Your task to perform on an android device: Search for vegetarian restaurants on Maps Image 0: 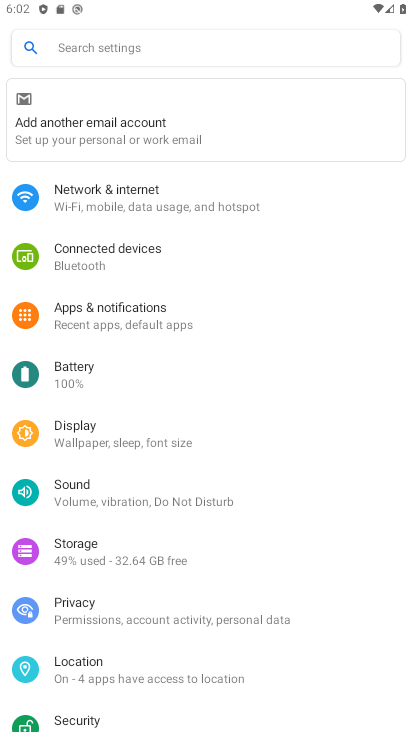
Step 0: press home button
Your task to perform on an android device: Search for vegetarian restaurants on Maps Image 1: 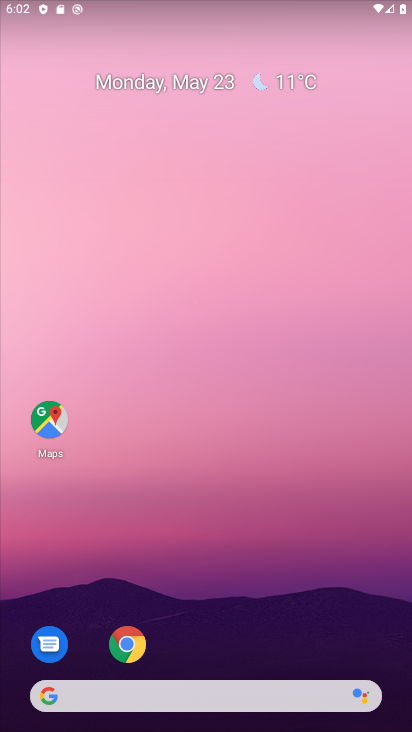
Step 1: click (57, 431)
Your task to perform on an android device: Search for vegetarian restaurants on Maps Image 2: 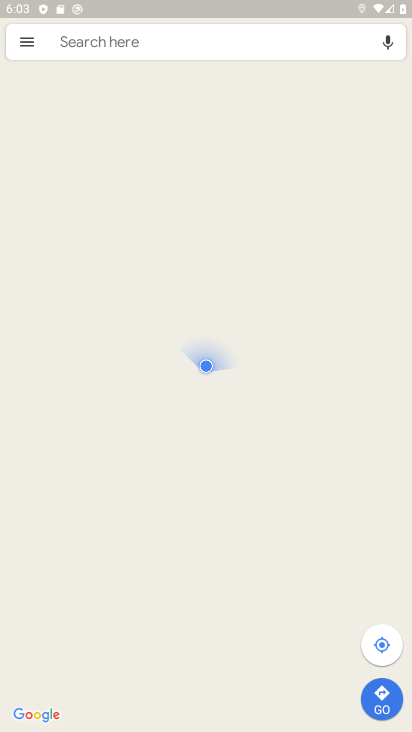
Step 2: click (148, 47)
Your task to perform on an android device: Search for vegetarian restaurants on Maps Image 3: 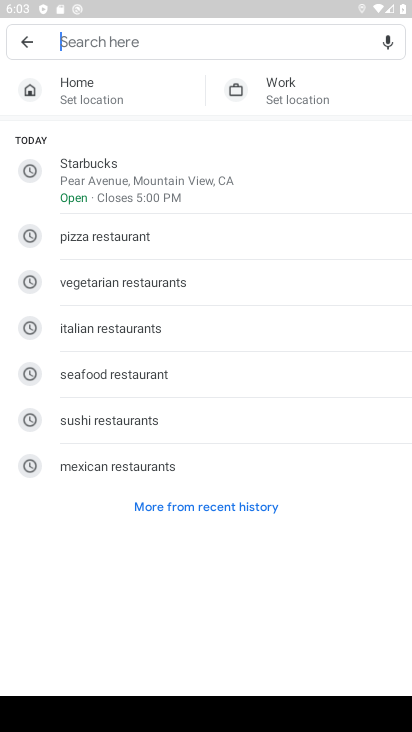
Step 3: click (114, 292)
Your task to perform on an android device: Search for vegetarian restaurants on Maps Image 4: 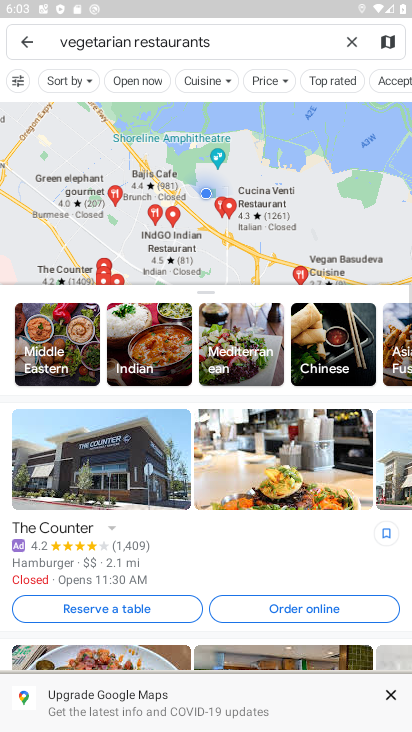
Step 4: task complete